Your task to perform on an android device: Open the map Image 0: 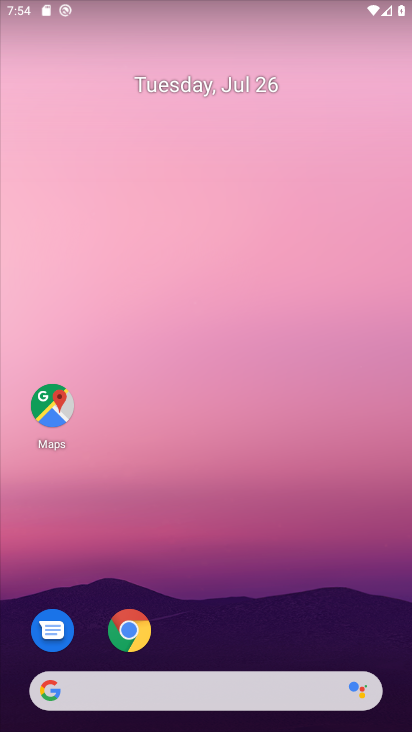
Step 0: click (52, 410)
Your task to perform on an android device: Open the map Image 1: 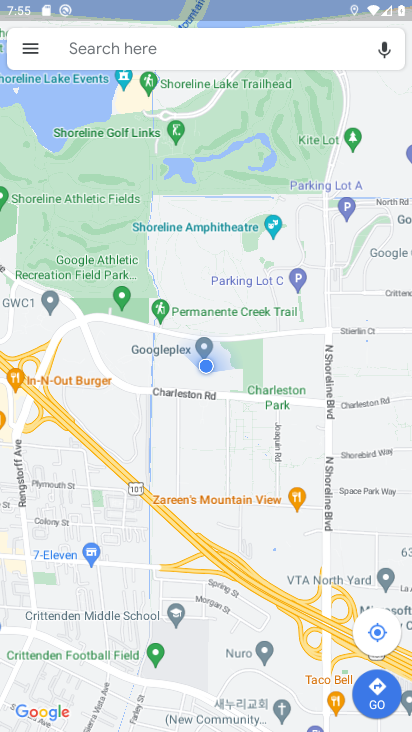
Step 1: task complete